Your task to perform on an android device: Go to CNN.com Image 0: 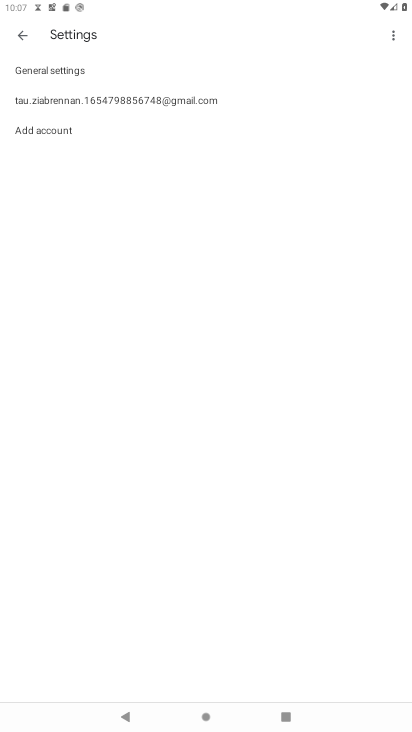
Step 0: press home button
Your task to perform on an android device: Go to CNN.com Image 1: 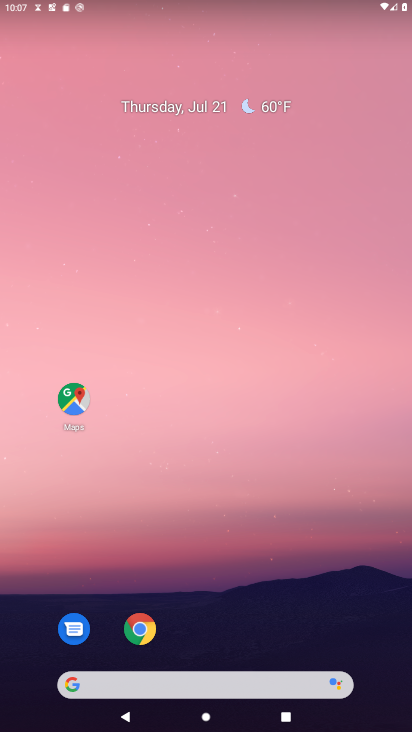
Step 1: click (147, 633)
Your task to perform on an android device: Go to CNN.com Image 2: 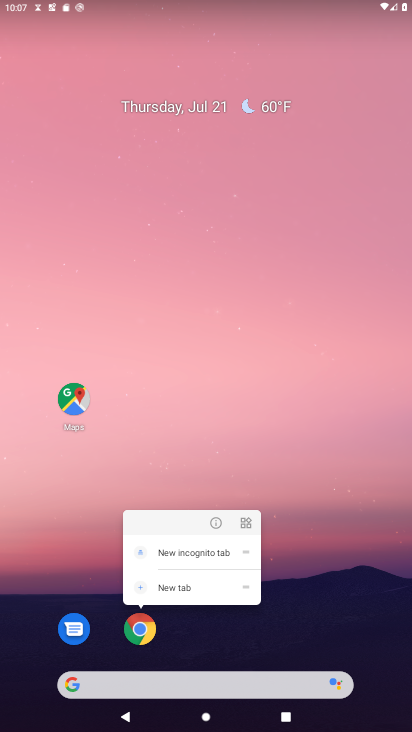
Step 2: click (137, 636)
Your task to perform on an android device: Go to CNN.com Image 3: 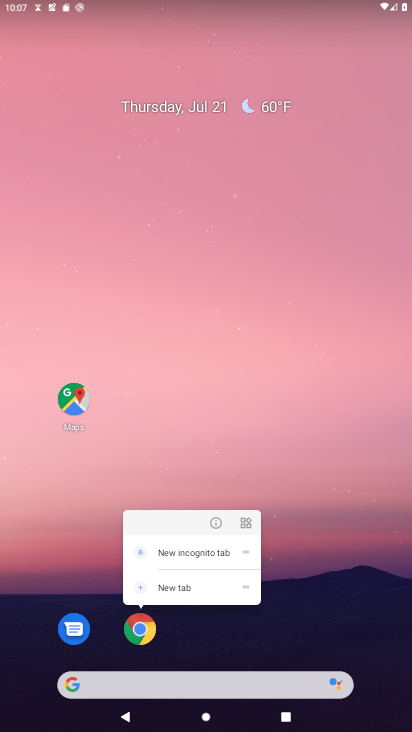
Step 3: click (151, 627)
Your task to perform on an android device: Go to CNN.com Image 4: 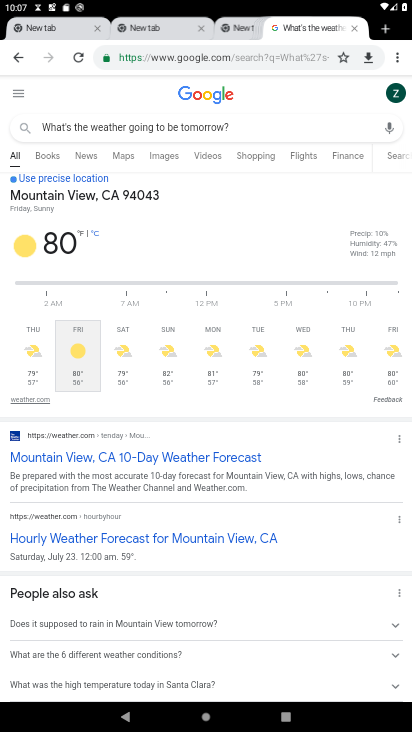
Step 4: click (355, 24)
Your task to perform on an android device: Go to CNN.com Image 5: 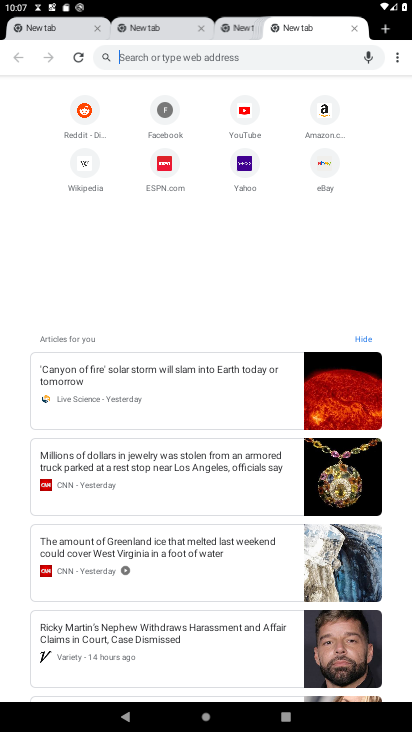
Step 5: click (389, 24)
Your task to perform on an android device: Go to CNN.com Image 6: 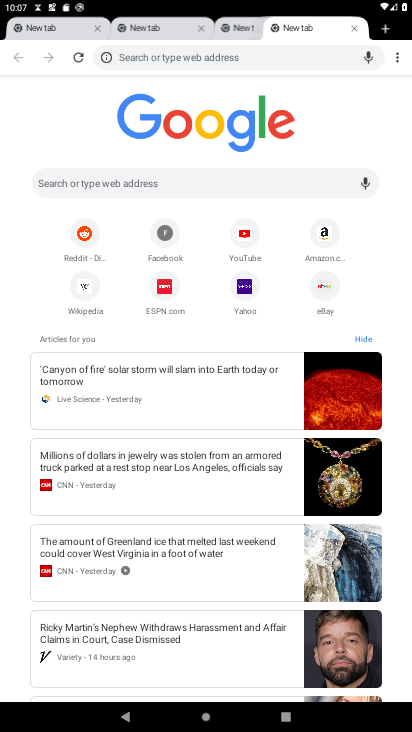
Step 6: click (229, 173)
Your task to perform on an android device: Go to CNN.com Image 7: 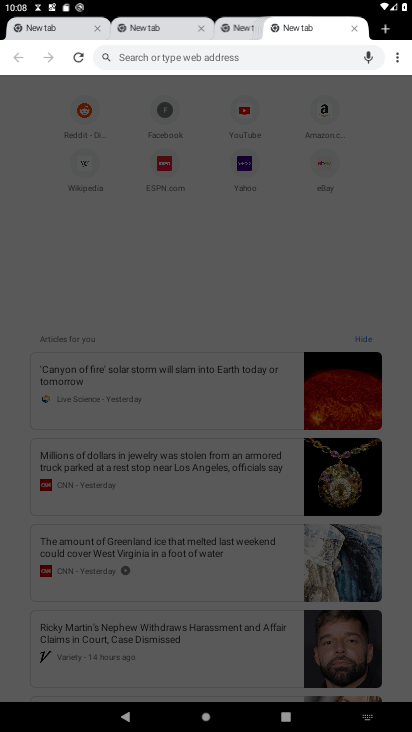
Step 7: type "CNN.co "
Your task to perform on an android device: Go to CNN.com Image 8: 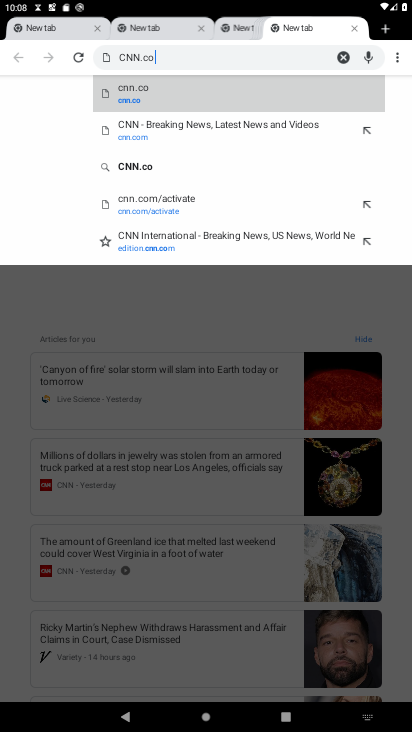
Step 8: click (153, 99)
Your task to perform on an android device: Go to CNN.com Image 9: 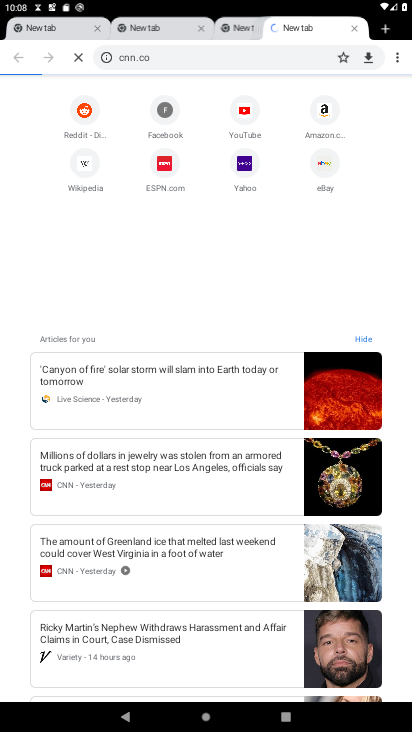
Step 9: click (391, 33)
Your task to perform on an android device: Go to CNN.com Image 10: 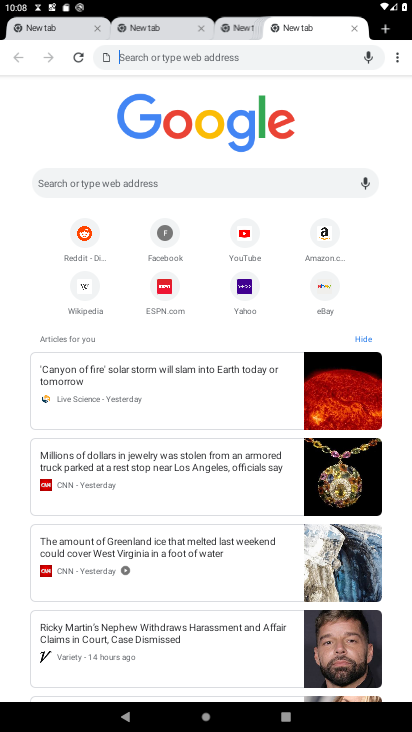
Step 10: click (180, 165)
Your task to perform on an android device: Go to CNN.com Image 11: 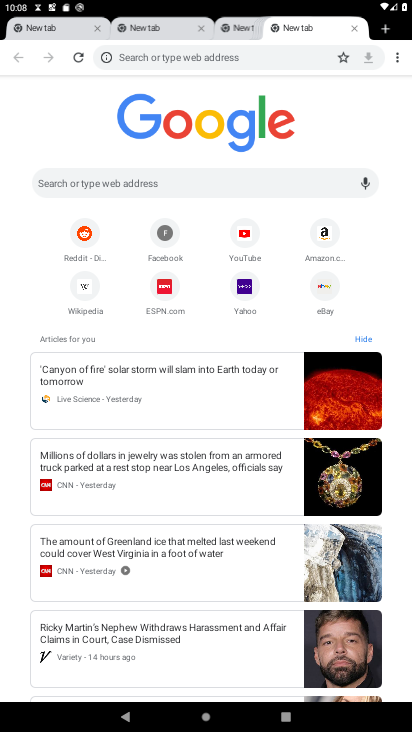
Step 11: click (188, 169)
Your task to perform on an android device: Go to CNN.com Image 12: 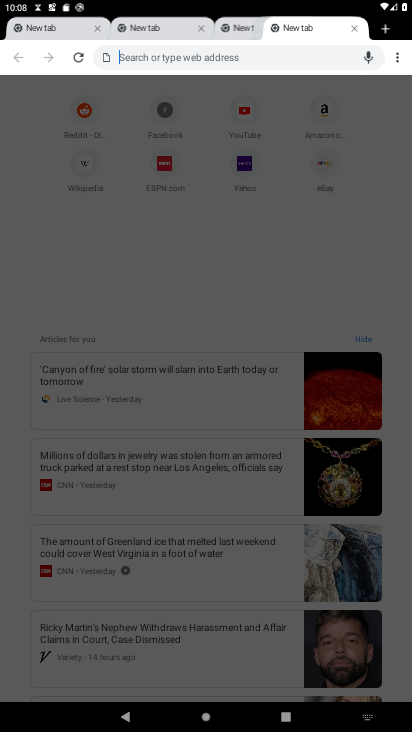
Step 12: type "CNN.com "
Your task to perform on an android device: Go to CNN.com Image 13: 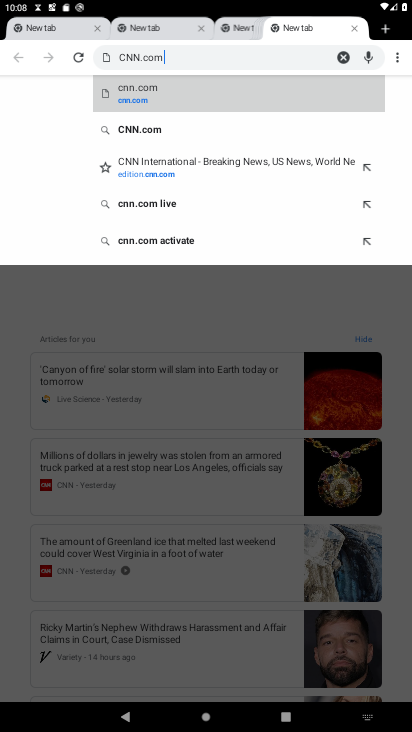
Step 13: click (229, 90)
Your task to perform on an android device: Go to CNN.com Image 14: 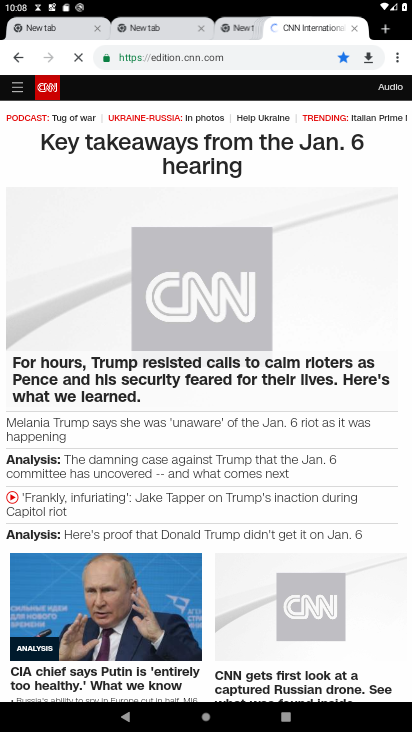
Step 14: task complete